Your task to perform on an android device: Find coffee shops on Maps Image 0: 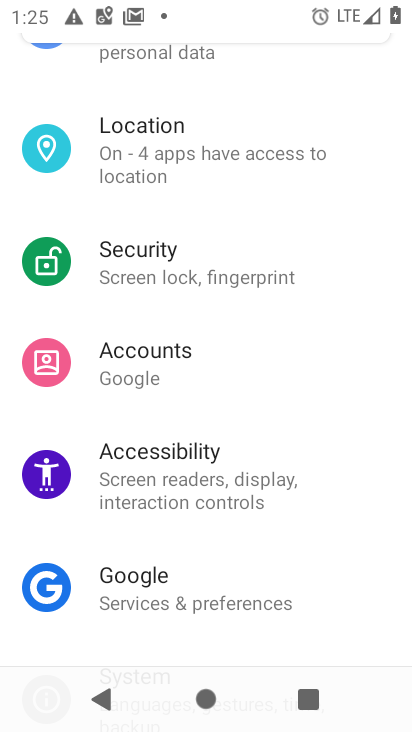
Step 0: press home button
Your task to perform on an android device: Find coffee shops on Maps Image 1: 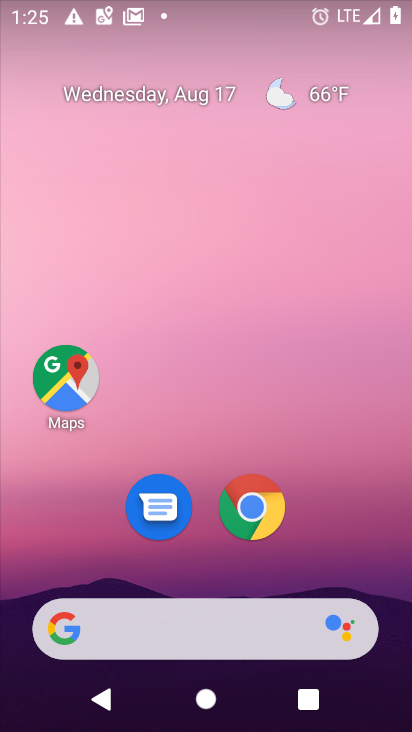
Step 1: click (42, 383)
Your task to perform on an android device: Find coffee shops on Maps Image 2: 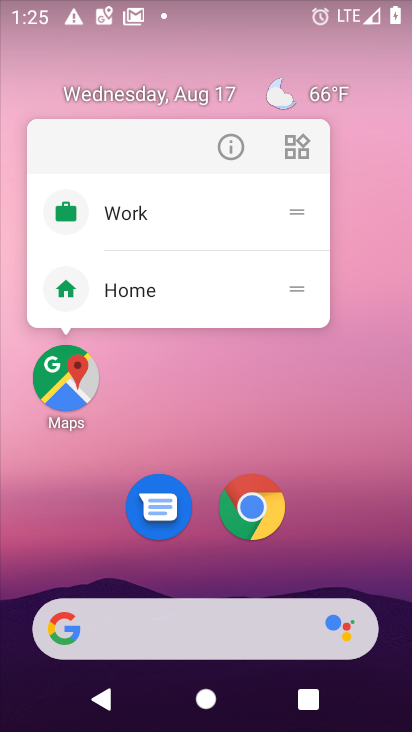
Step 2: click (60, 404)
Your task to perform on an android device: Find coffee shops on Maps Image 3: 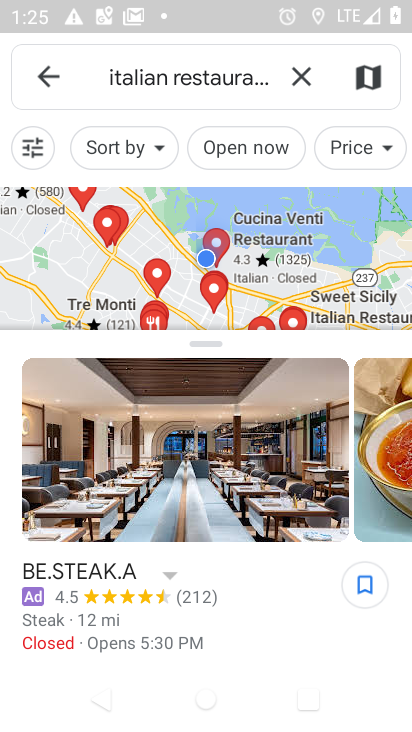
Step 3: click (301, 70)
Your task to perform on an android device: Find coffee shops on Maps Image 4: 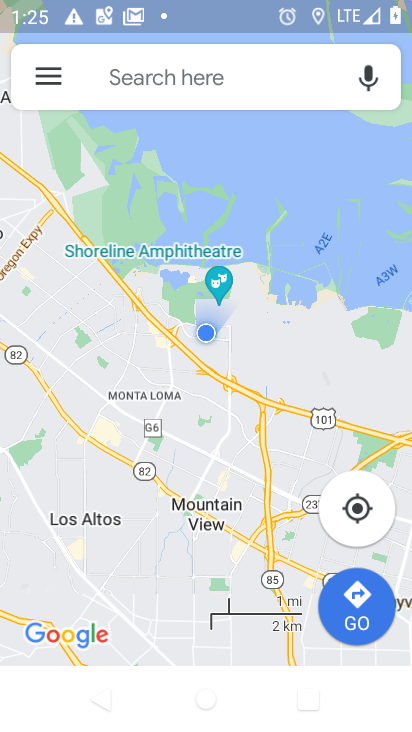
Step 4: click (193, 68)
Your task to perform on an android device: Find coffee shops on Maps Image 5: 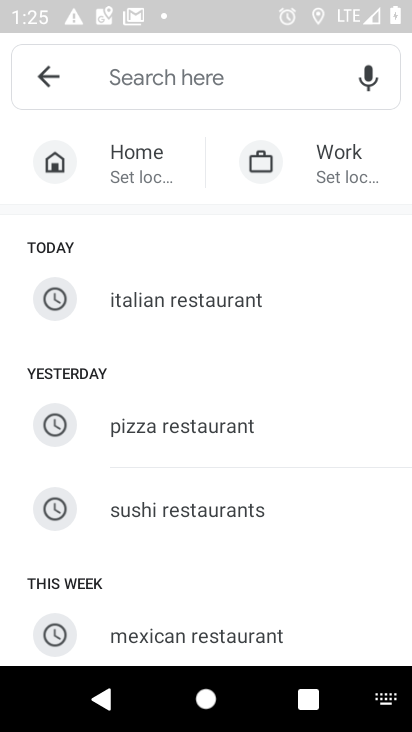
Step 5: drag from (168, 517) to (187, 84)
Your task to perform on an android device: Find coffee shops on Maps Image 6: 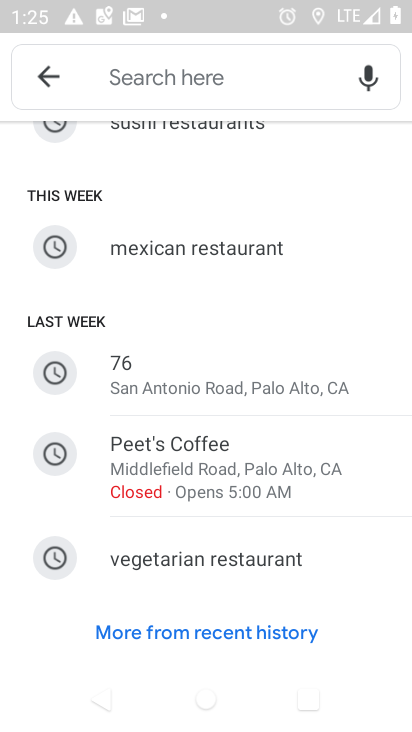
Step 6: click (120, 81)
Your task to perform on an android device: Find coffee shops on Maps Image 7: 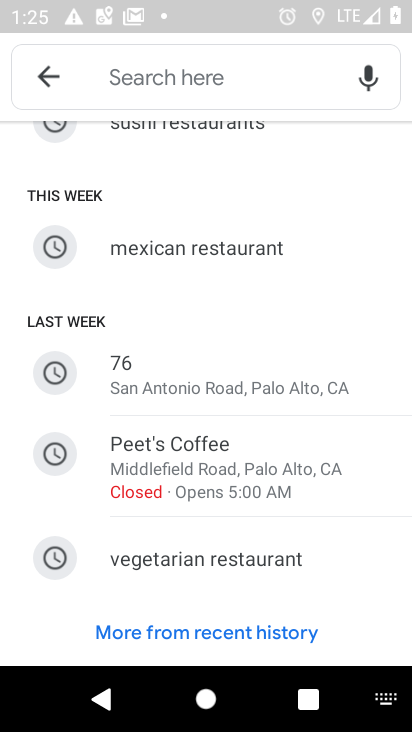
Step 7: type "coffee shops"
Your task to perform on an android device: Find coffee shops on Maps Image 8: 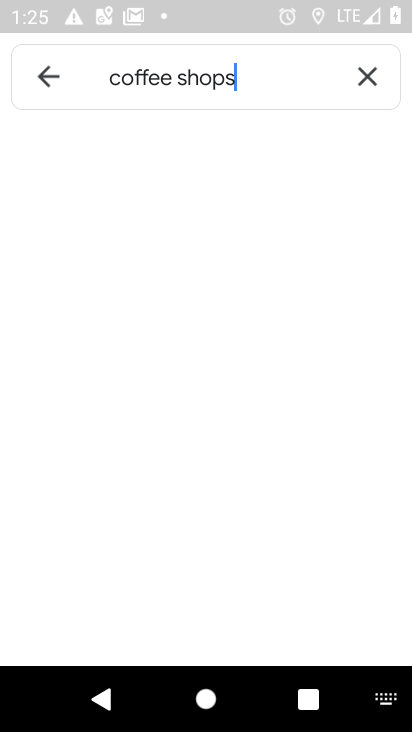
Step 8: type ""
Your task to perform on an android device: Find coffee shops on Maps Image 9: 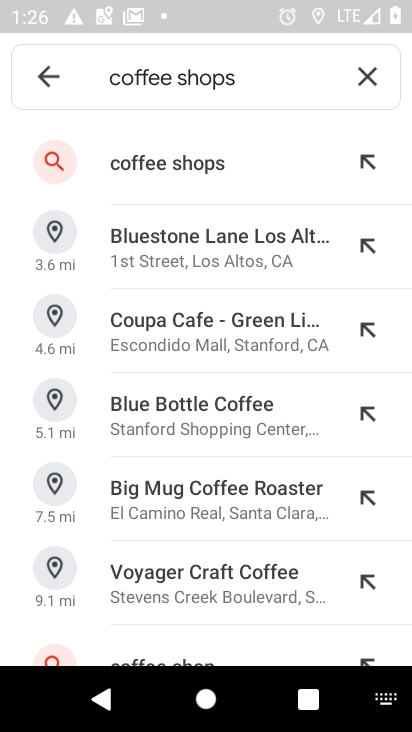
Step 9: click (163, 154)
Your task to perform on an android device: Find coffee shops on Maps Image 10: 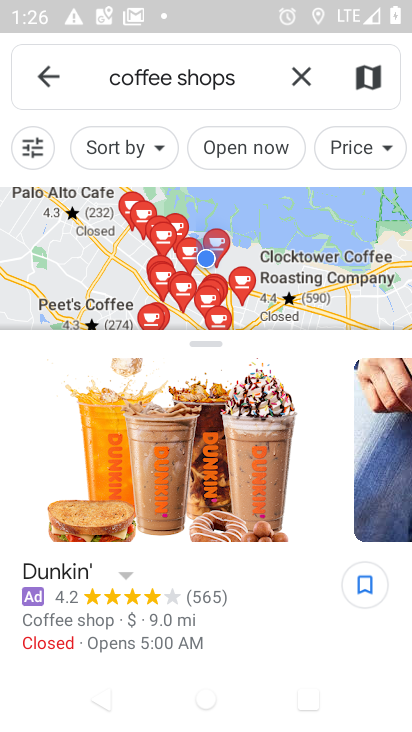
Step 10: task complete